Your task to perform on an android device: stop showing notifications on the lock screen Image 0: 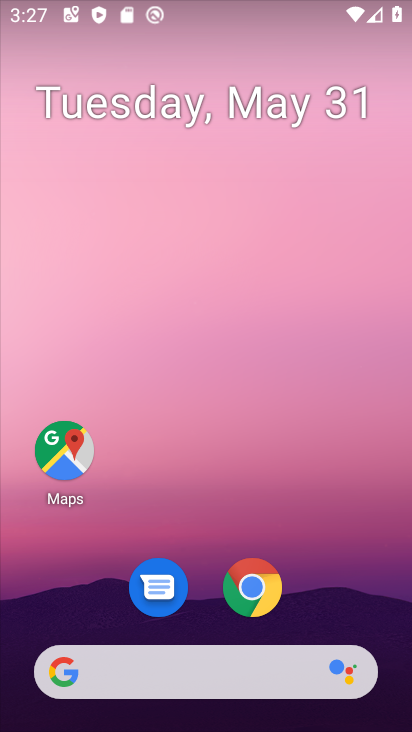
Step 0: drag from (315, 570) to (256, 84)
Your task to perform on an android device: stop showing notifications on the lock screen Image 1: 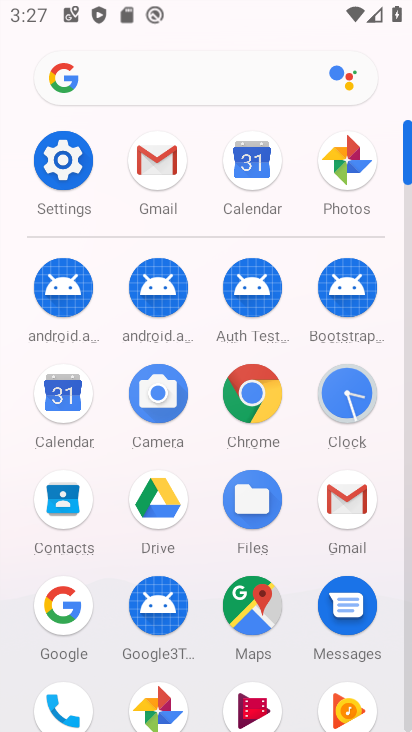
Step 1: click (53, 157)
Your task to perform on an android device: stop showing notifications on the lock screen Image 2: 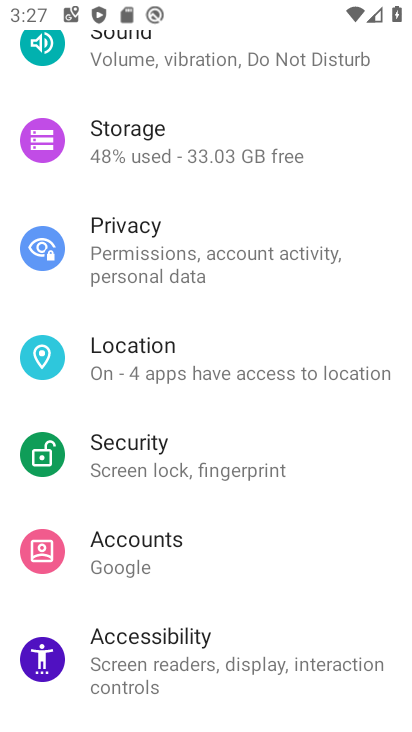
Step 2: drag from (156, 333) to (228, 712)
Your task to perform on an android device: stop showing notifications on the lock screen Image 3: 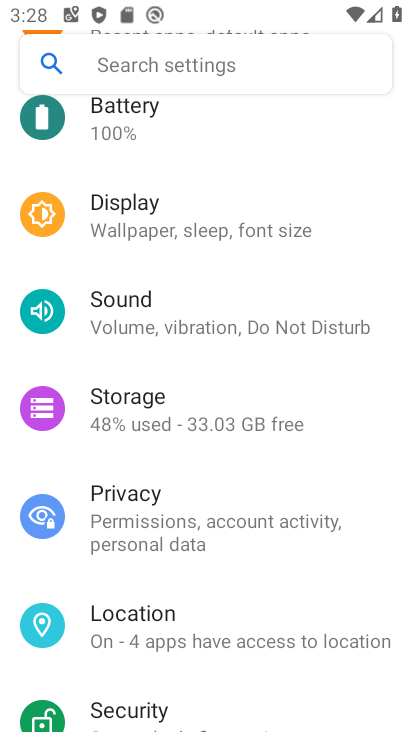
Step 3: drag from (188, 289) to (272, 604)
Your task to perform on an android device: stop showing notifications on the lock screen Image 4: 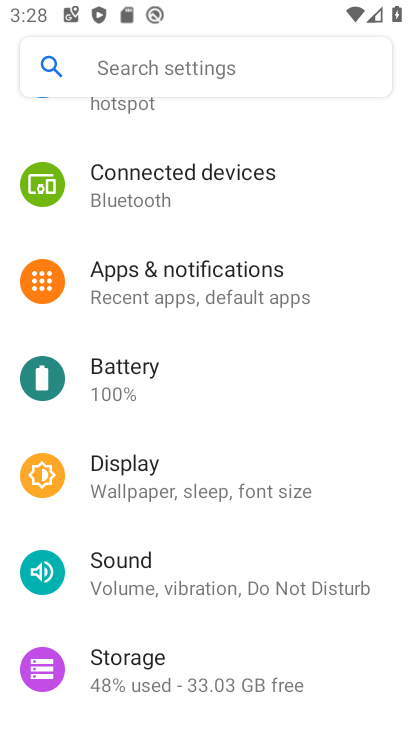
Step 4: click (192, 285)
Your task to perform on an android device: stop showing notifications on the lock screen Image 5: 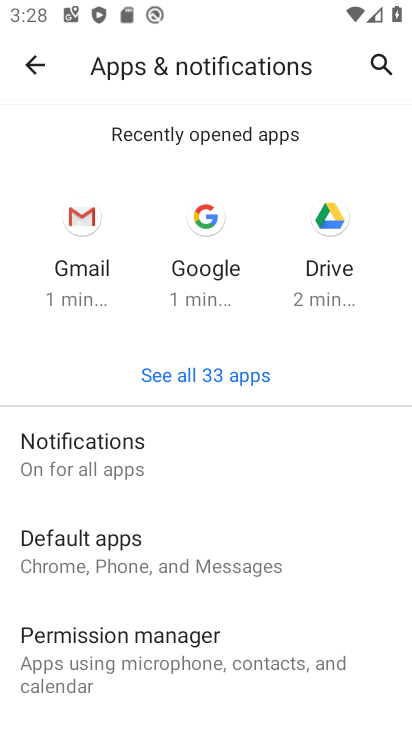
Step 5: click (106, 474)
Your task to perform on an android device: stop showing notifications on the lock screen Image 6: 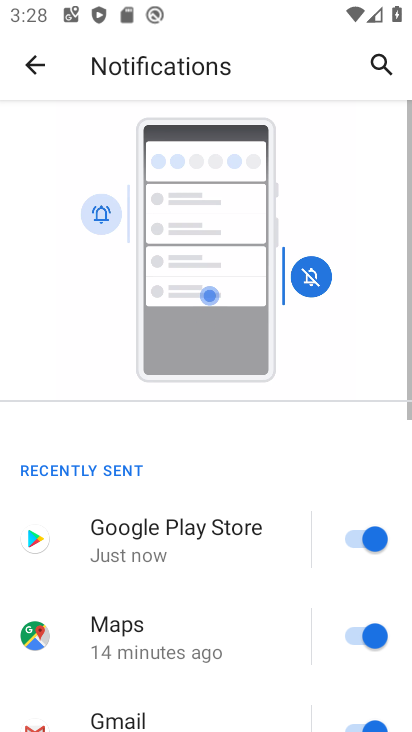
Step 6: drag from (168, 602) to (182, 49)
Your task to perform on an android device: stop showing notifications on the lock screen Image 7: 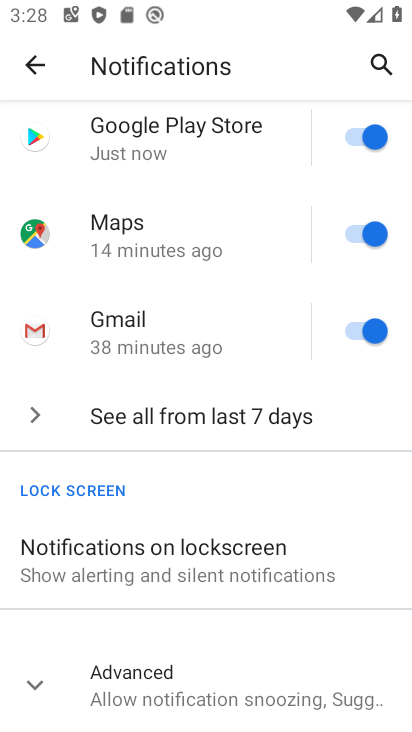
Step 7: click (143, 545)
Your task to perform on an android device: stop showing notifications on the lock screen Image 8: 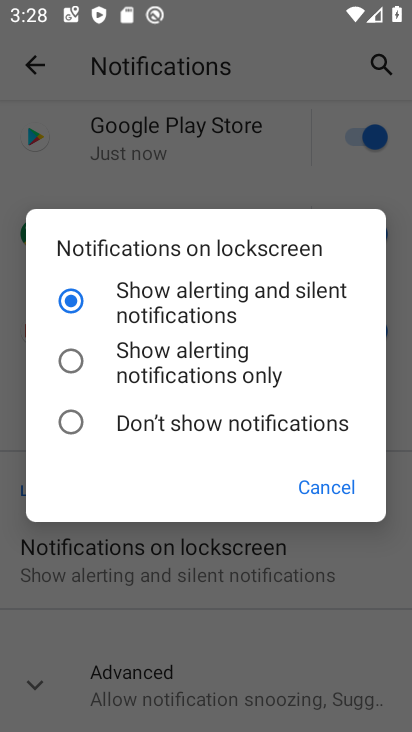
Step 8: click (176, 427)
Your task to perform on an android device: stop showing notifications on the lock screen Image 9: 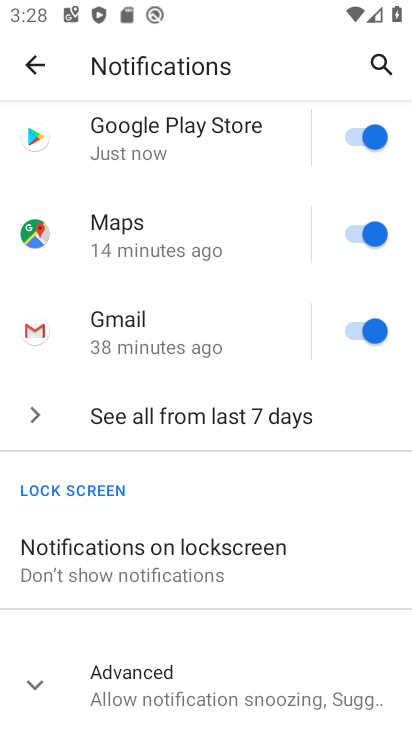
Step 9: task complete